Your task to perform on an android device: Open network settings Image 0: 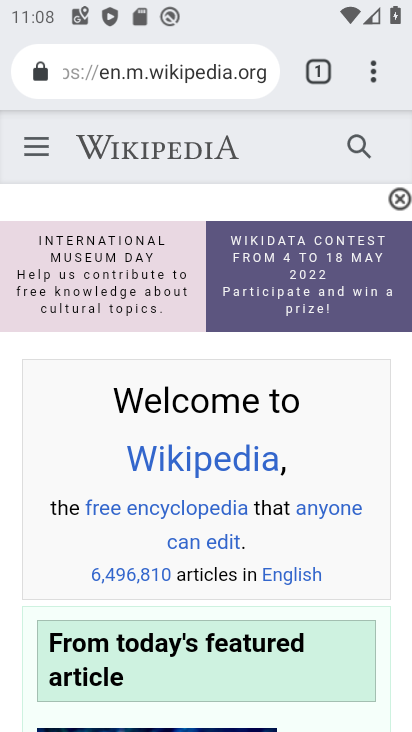
Step 0: press home button
Your task to perform on an android device: Open network settings Image 1: 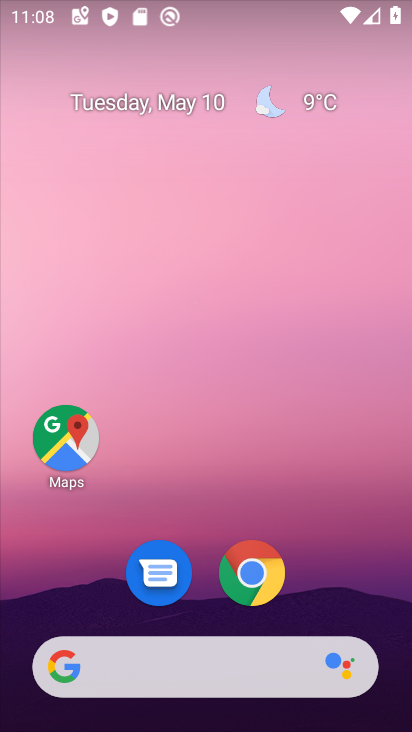
Step 1: drag from (216, 725) to (204, 240)
Your task to perform on an android device: Open network settings Image 2: 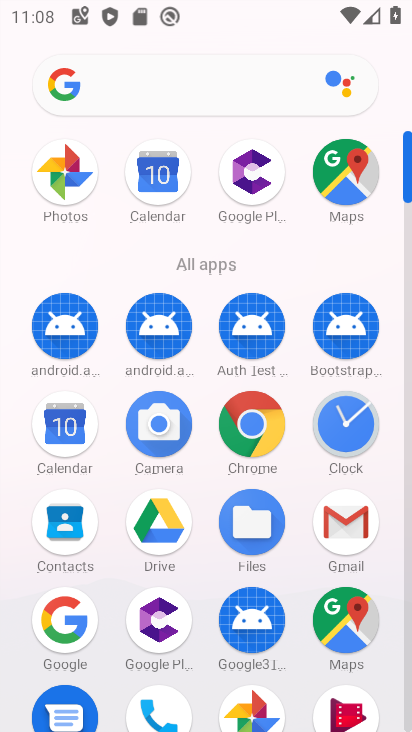
Step 2: drag from (15, 649) to (50, 246)
Your task to perform on an android device: Open network settings Image 3: 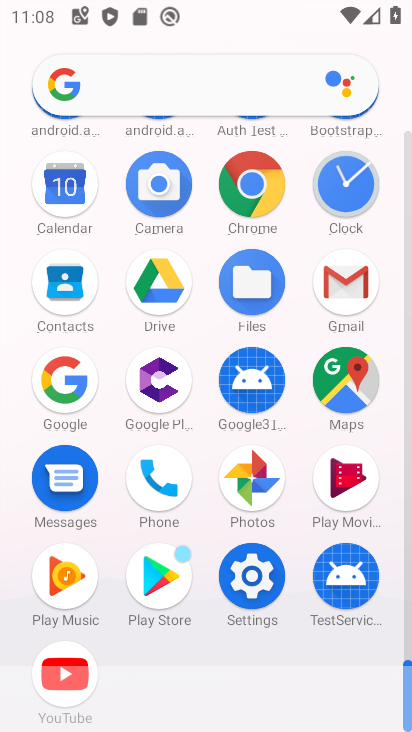
Step 3: click (252, 578)
Your task to perform on an android device: Open network settings Image 4: 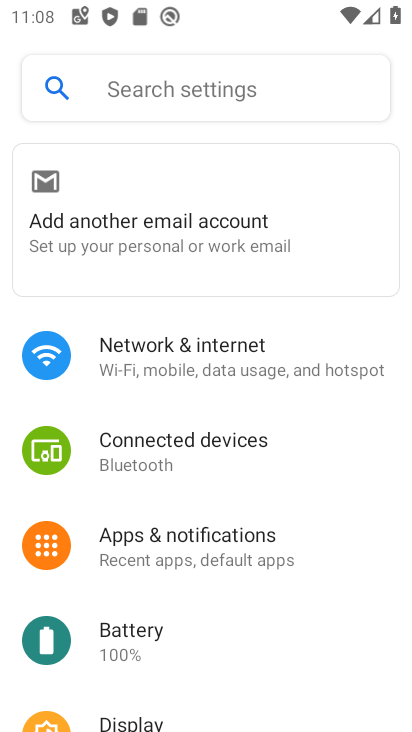
Step 4: click (130, 357)
Your task to perform on an android device: Open network settings Image 5: 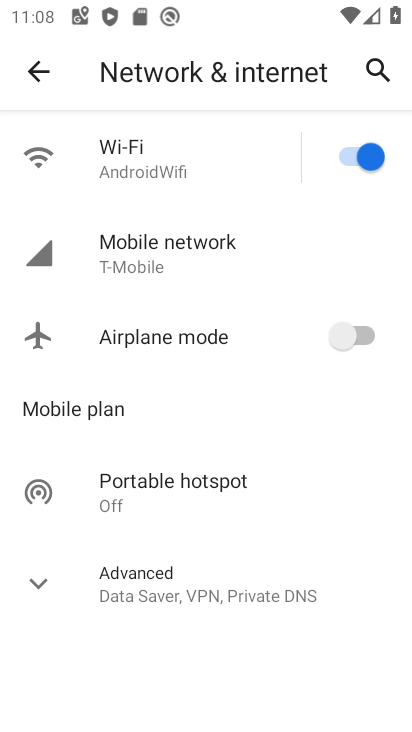
Step 5: click (127, 240)
Your task to perform on an android device: Open network settings Image 6: 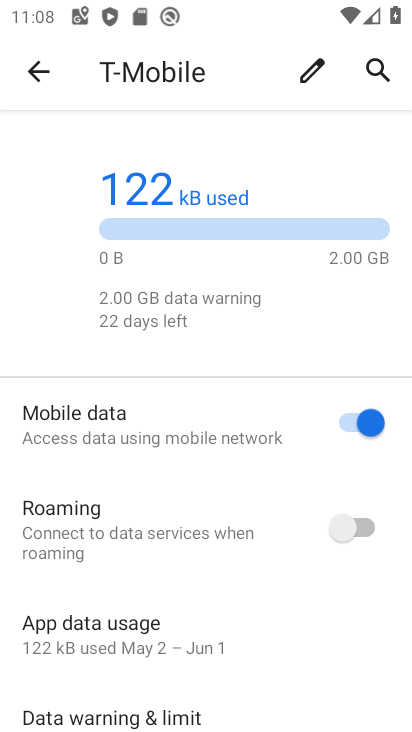
Step 6: task complete